Your task to perform on an android device: delete location history Image 0: 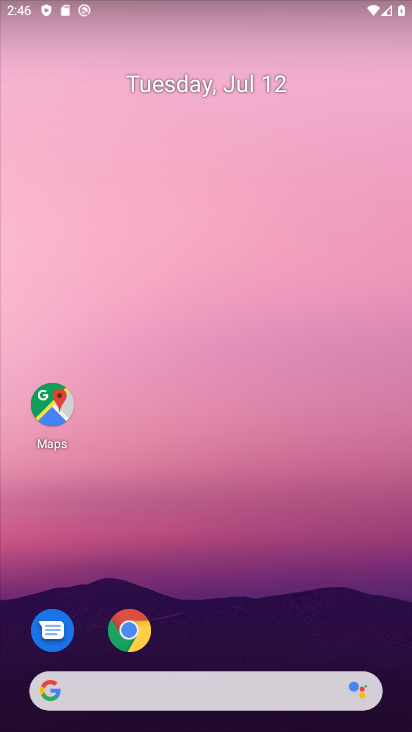
Step 0: drag from (339, 662) to (352, 256)
Your task to perform on an android device: delete location history Image 1: 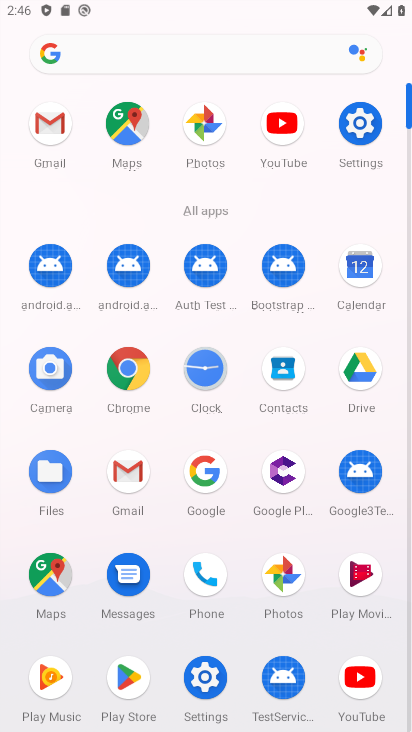
Step 1: click (367, 118)
Your task to perform on an android device: delete location history Image 2: 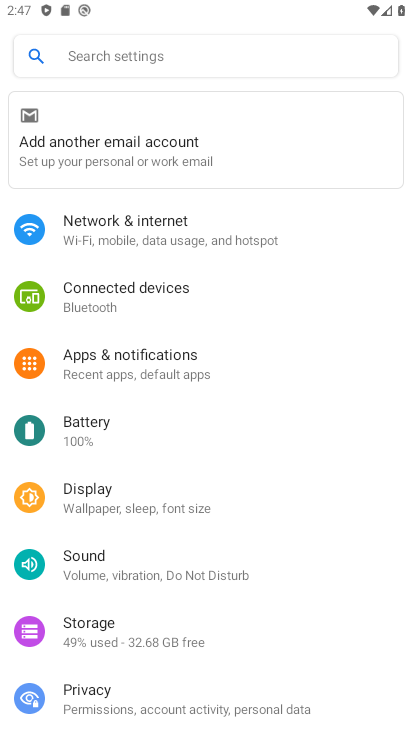
Step 2: drag from (110, 678) to (132, 283)
Your task to perform on an android device: delete location history Image 3: 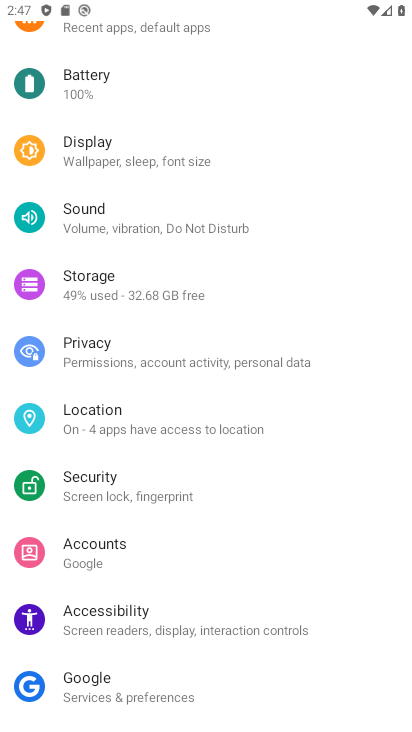
Step 3: click (121, 410)
Your task to perform on an android device: delete location history Image 4: 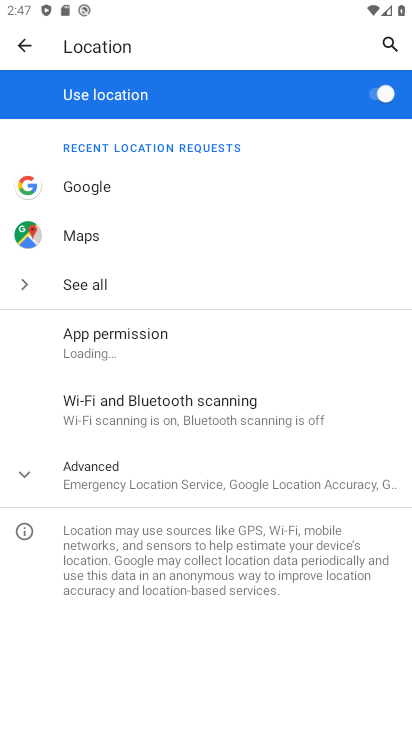
Step 4: press home button
Your task to perform on an android device: delete location history Image 5: 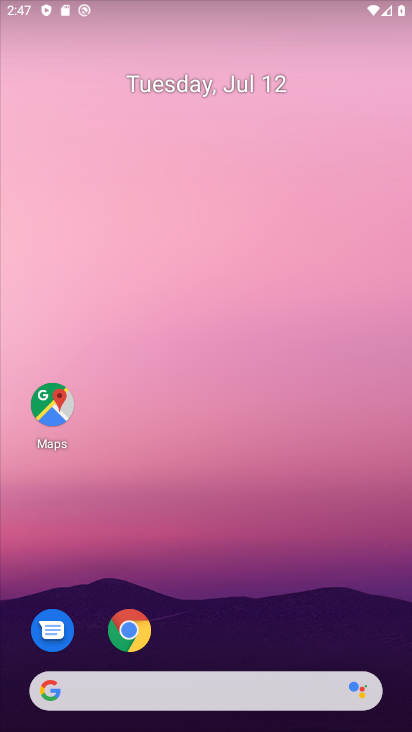
Step 5: drag from (189, 674) to (261, 4)
Your task to perform on an android device: delete location history Image 6: 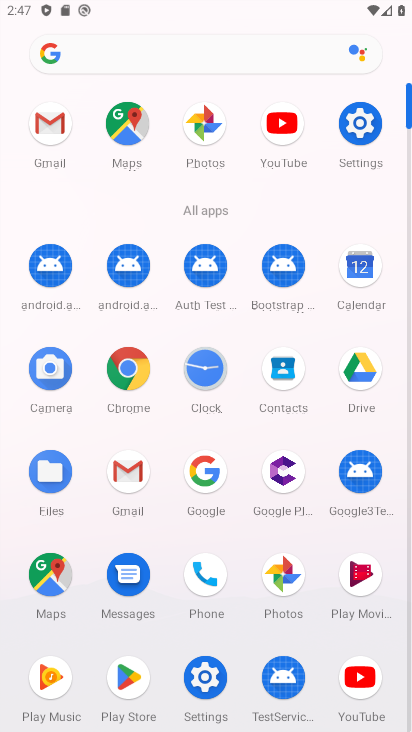
Step 6: click (59, 568)
Your task to perform on an android device: delete location history Image 7: 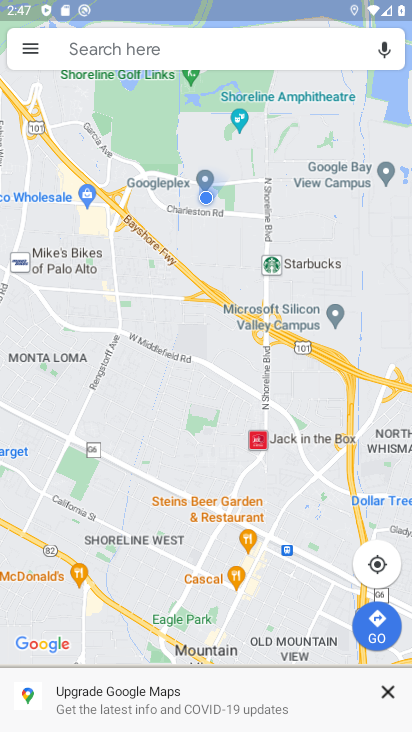
Step 7: click (34, 55)
Your task to perform on an android device: delete location history Image 8: 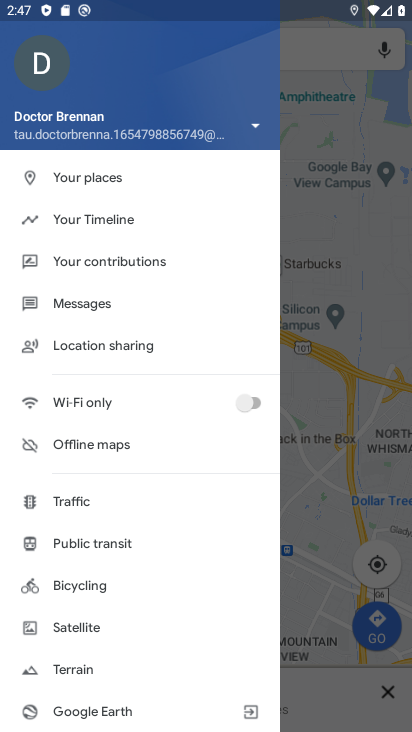
Step 8: click (141, 216)
Your task to perform on an android device: delete location history Image 9: 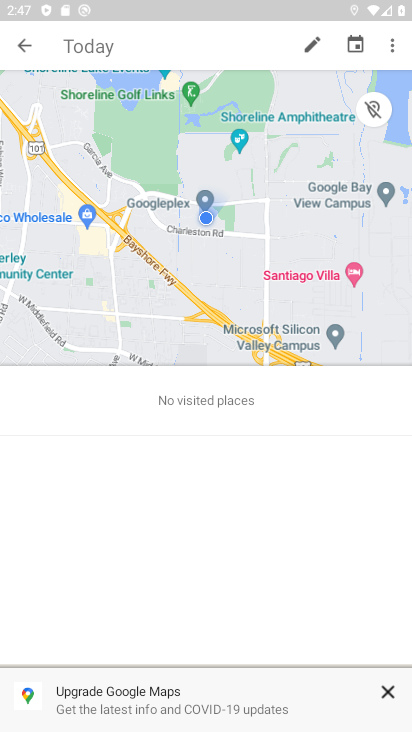
Step 9: click (394, 40)
Your task to perform on an android device: delete location history Image 10: 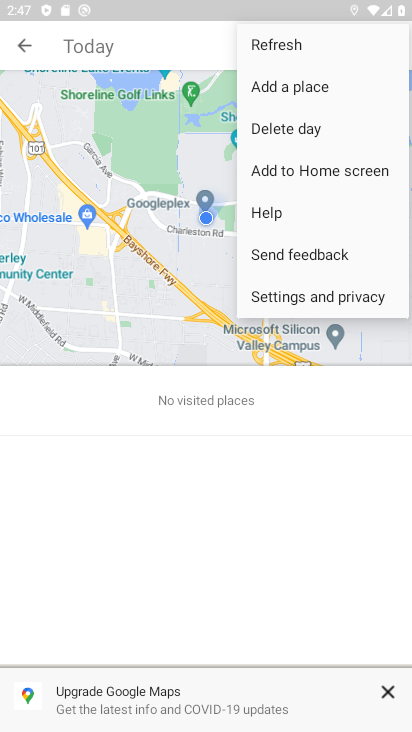
Step 10: click (309, 291)
Your task to perform on an android device: delete location history Image 11: 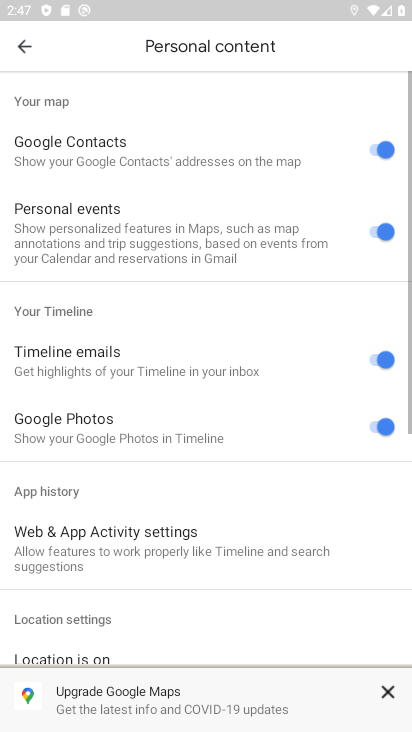
Step 11: drag from (103, 614) to (157, 207)
Your task to perform on an android device: delete location history Image 12: 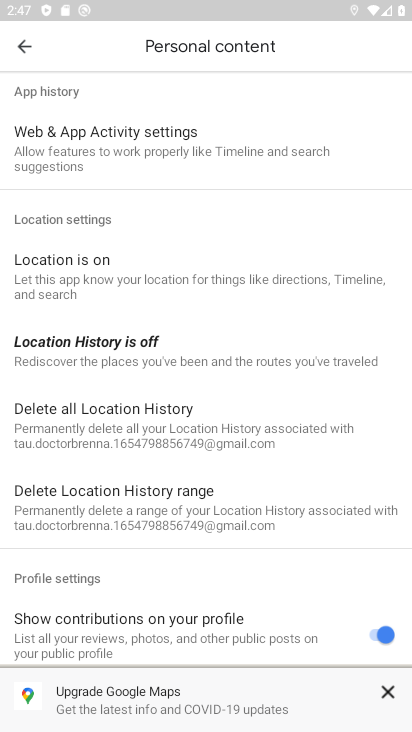
Step 12: click (169, 430)
Your task to perform on an android device: delete location history Image 13: 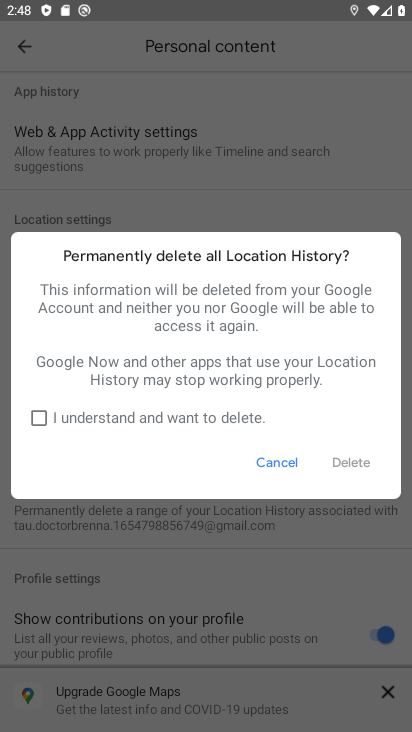
Step 13: click (42, 421)
Your task to perform on an android device: delete location history Image 14: 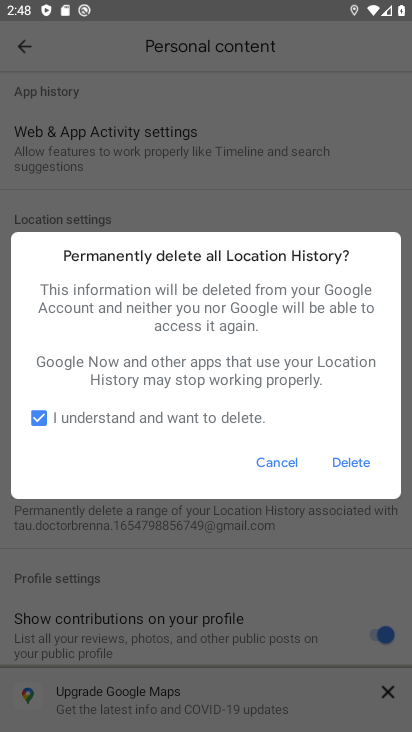
Step 14: click (345, 459)
Your task to perform on an android device: delete location history Image 15: 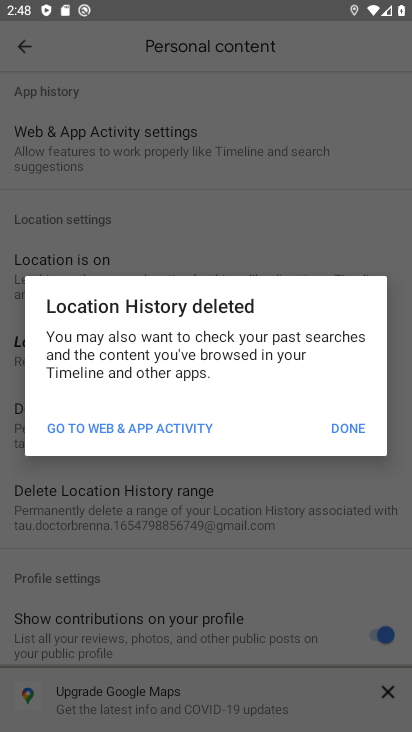
Step 15: click (349, 429)
Your task to perform on an android device: delete location history Image 16: 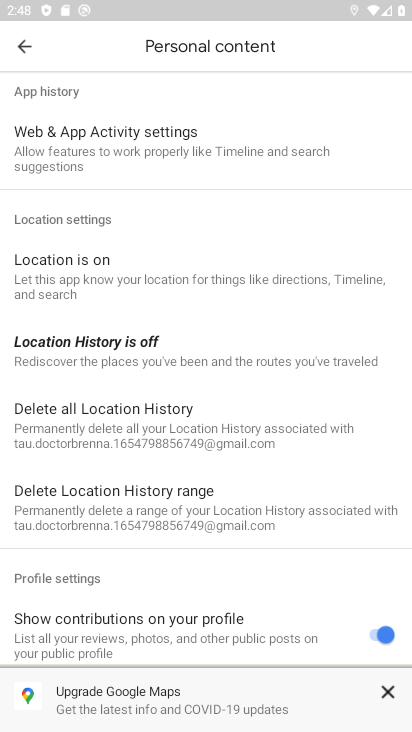
Step 16: task complete